Your task to perform on an android device: Do I have any events tomorrow? Image 0: 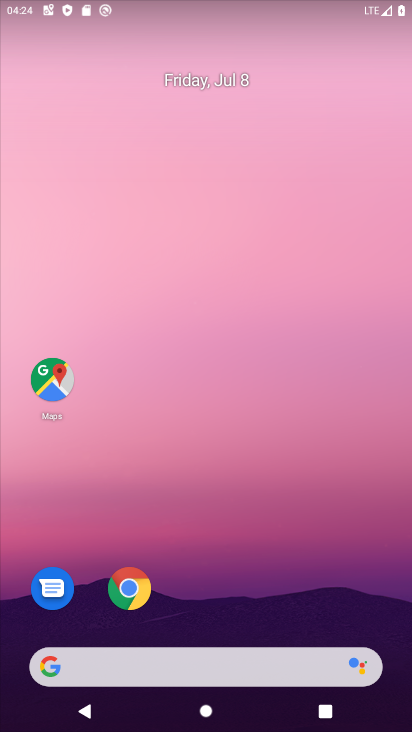
Step 0: drag from (183, 497) to (201, 178)
Your task to perform on an android device: Do I have any events tomorrow? Image 1: 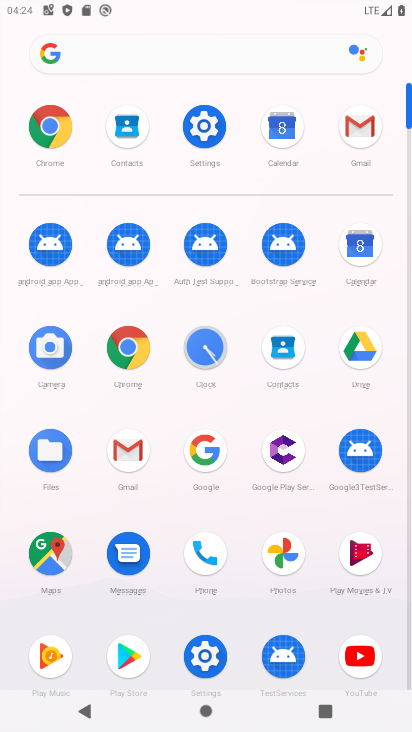
Step 1: click (364, 253)
Your task to perform on an android device: Do I have any events tomorrow? Image 2: 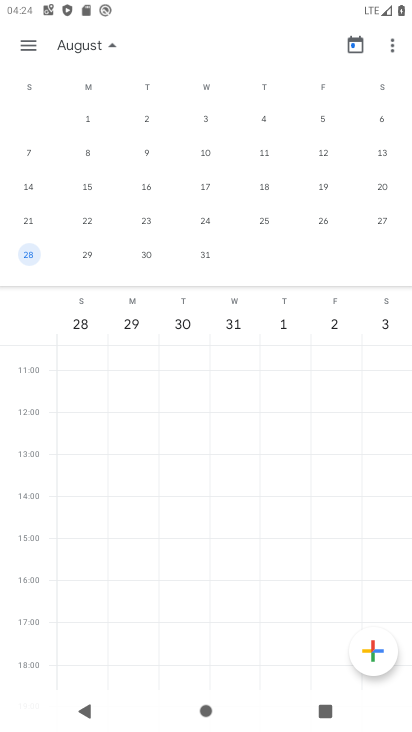
Step 2: drag from (118, 203) to (299, 172)
Your task to perform on an android device: Do I have any events tomorrow? Image 3: 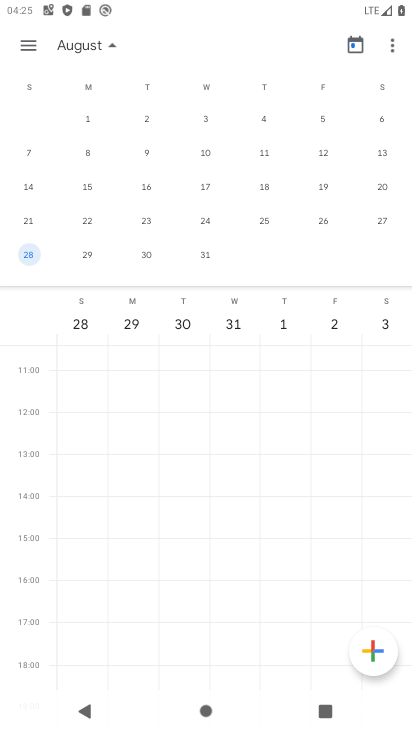
Step 3: drag from (120, 182) to (390, 135)
Your task to perform on an android device: Do I have any events tomorrow? Image 4: 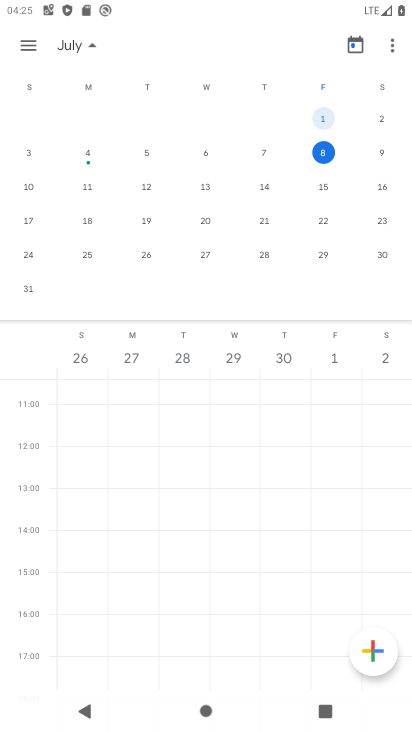
Step 4: click (384, 151)
Your task to perform on an android device: Do I have any events tomorrow? Image 5: 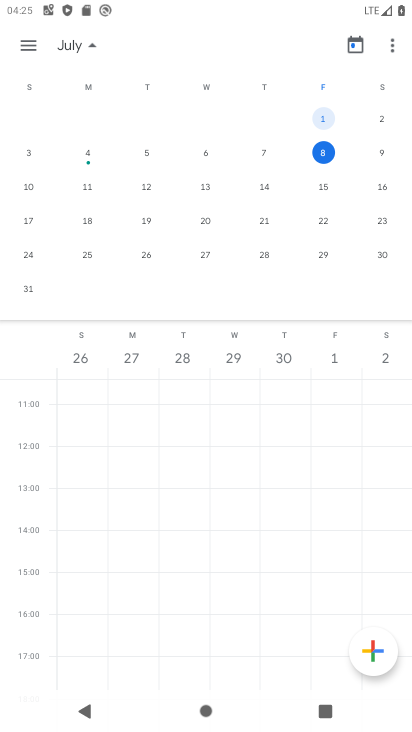
Step 5: click (384, 151)
Your task to perform on an android device: Do I have any events tomorrow? Image 6: 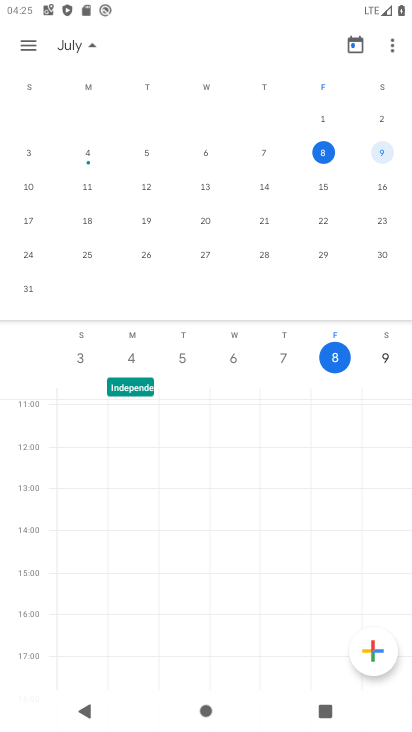
Step 6: task complete